Your task to perform on an android device: turn on showing notifications on the lock screen Image 0: 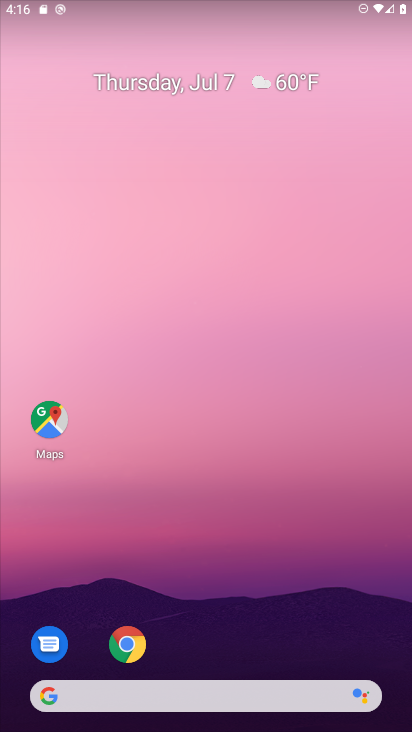
Step 0: drag from (276, 573) to (143, 29)
Your task to perform on an android device: turn on showing notifications on the lock screen Image 1: 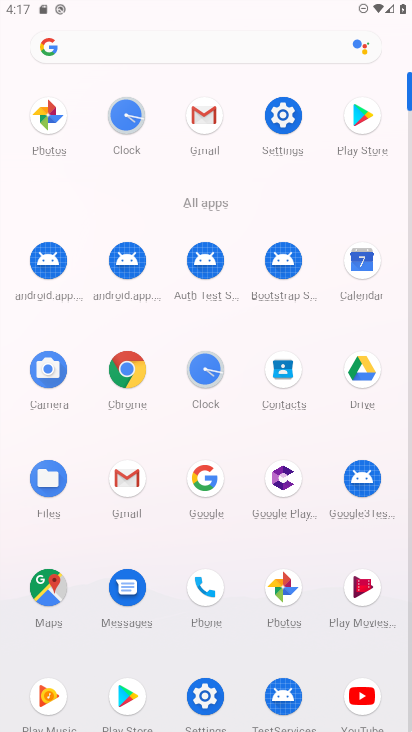
Step 1: click (299, 114)
Your task to perform on an android device: turn on showing notifications on the lock screen Image 2: 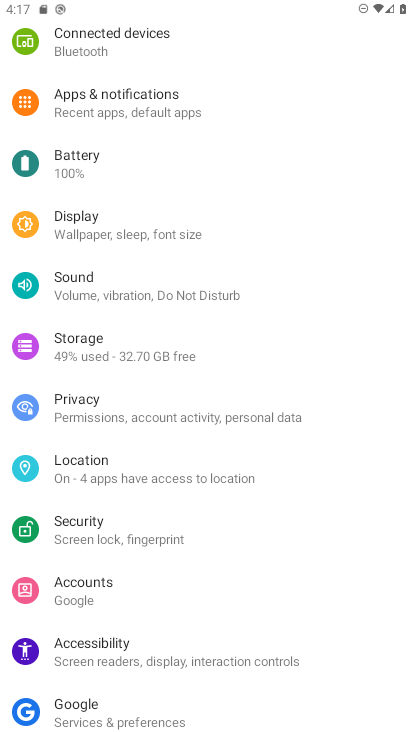
Step 2: click (186, 111)
Your task to perform on an android device: turn on showing notifications on the lock screen Image 3: 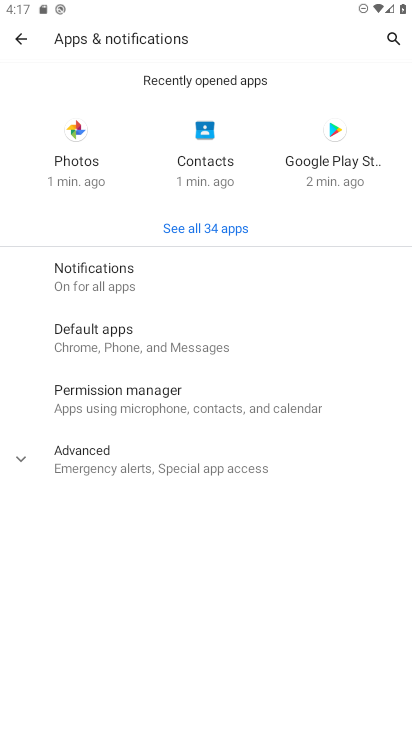
Step 3: click (202, 283)
Your task to perform on an android device: turn on showing notifications on the lock screen Image 4: 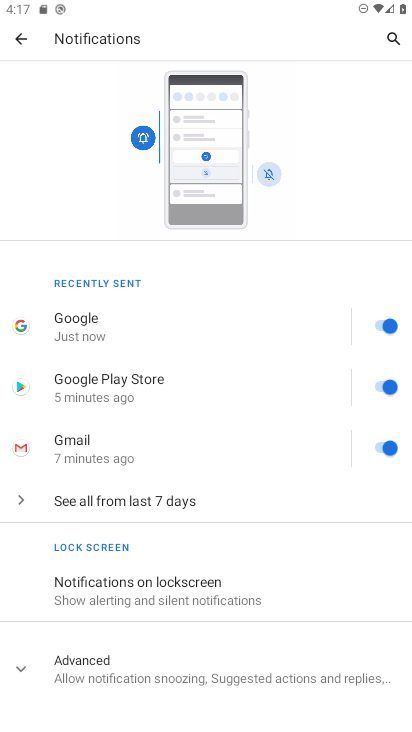
Step 4: click (202, 283)
Your task to perform on an android device: turn on showing notifications on the lock screen Image 5: 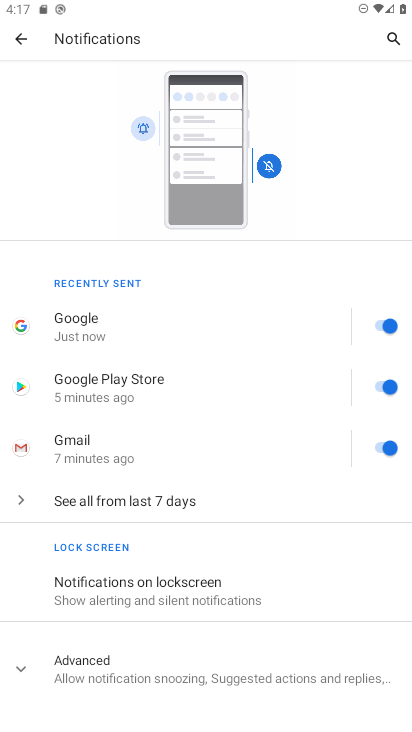
Step 5: click (265, 584)
Your task to perform on an android device: turn on showing notifications on the lock screen Image 6: 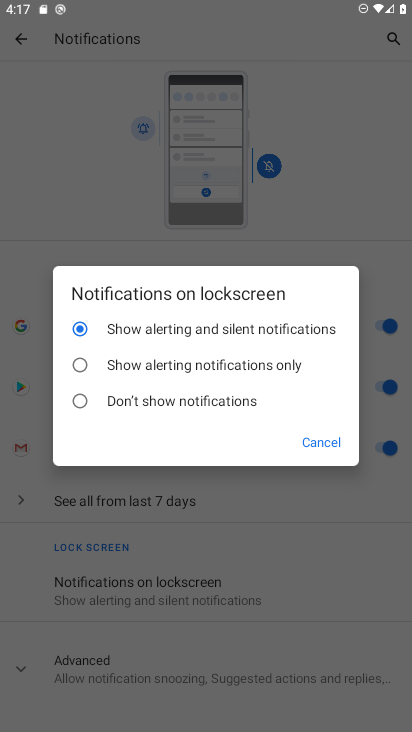
Step 6: task complete